Your task to perform on an android device: turn off location history Image 0: 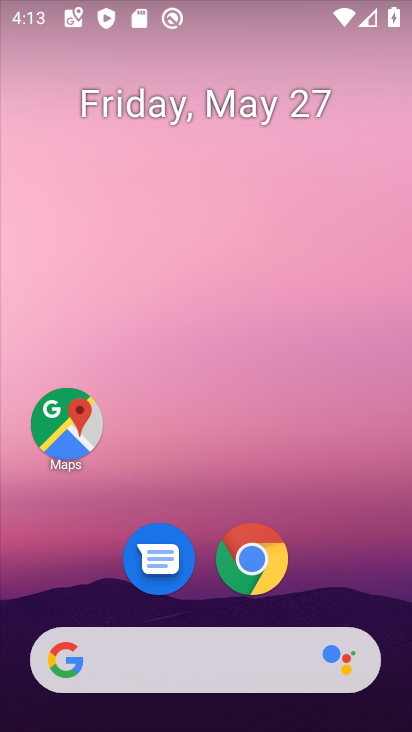
Step 0: drag from (388, 677) to (293, 261)
Your task to perform on an android device: turn off location history Image 1: 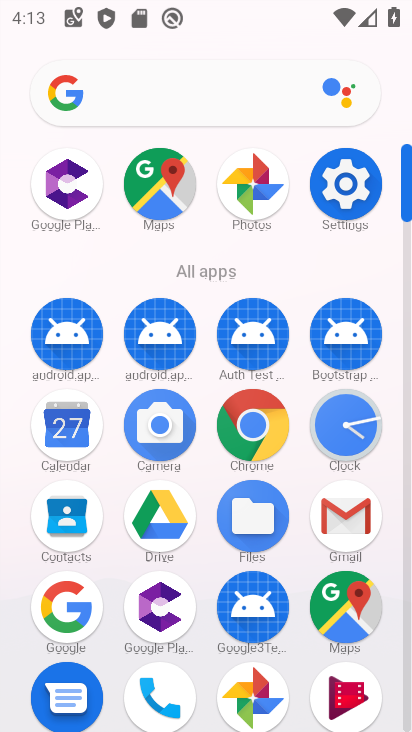
Step 1: click (342, 189)
Your task to perform on an android device: turn off location history Image 2: 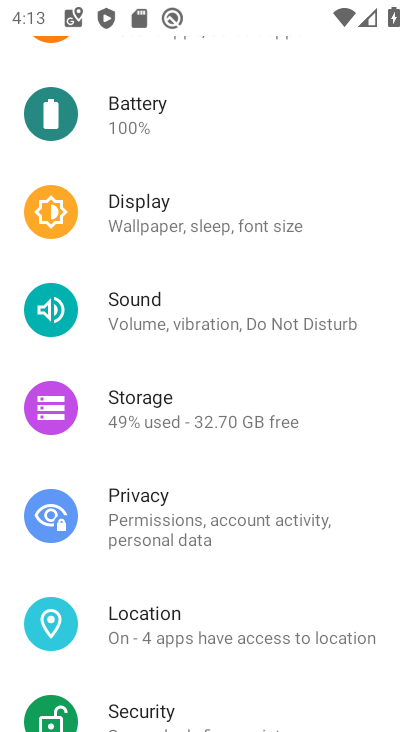
Step 2: click (157, 618)
Your task to perform on an android device: turn off location history Image 3: 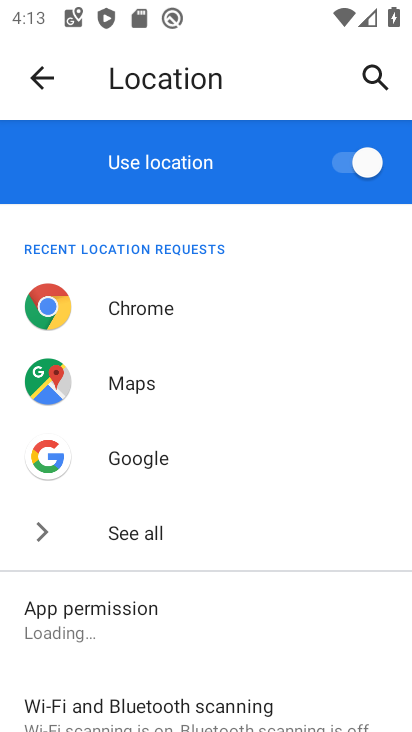
Step 3: drag from (245, 665) to (229, 302)
Your task to perform on an android device: turn off location history Image 4: 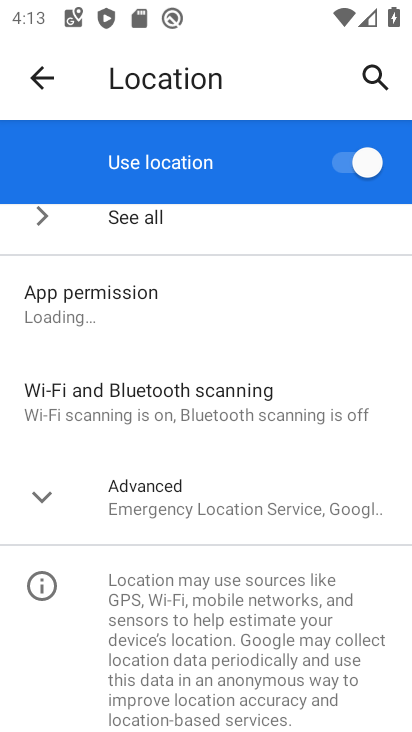
Step 4: click (56, 497)
Your task to perform on an android device: turn off location history Image 5: 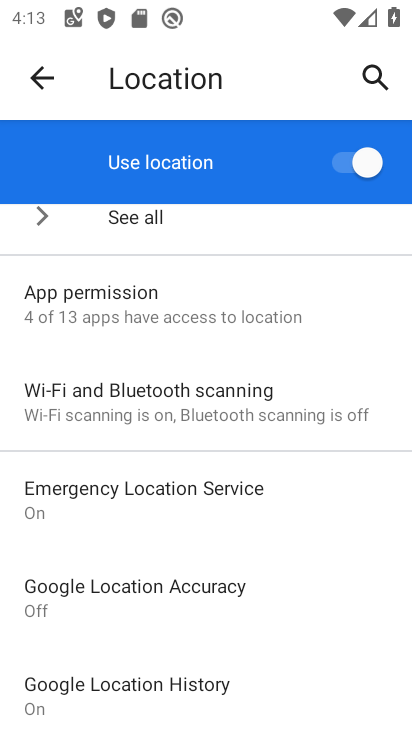
Step 5: click (156, 691)
Your task to perform on an android device: turn off location history Image 6: 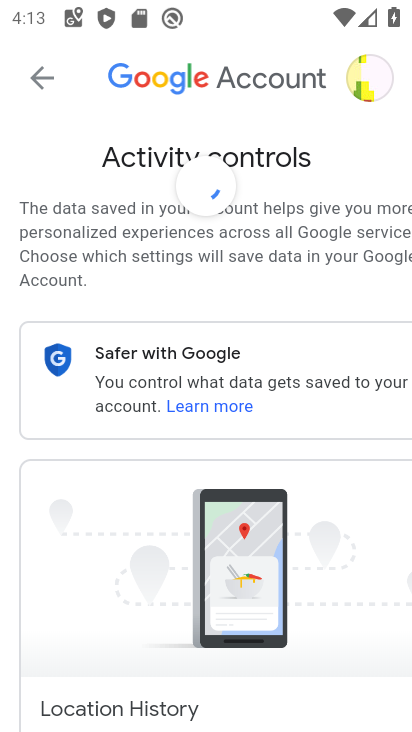
Step 6: drag from (132, 512) to (122, 223)
Your task to perform on an android device: turn off location history Image 7: 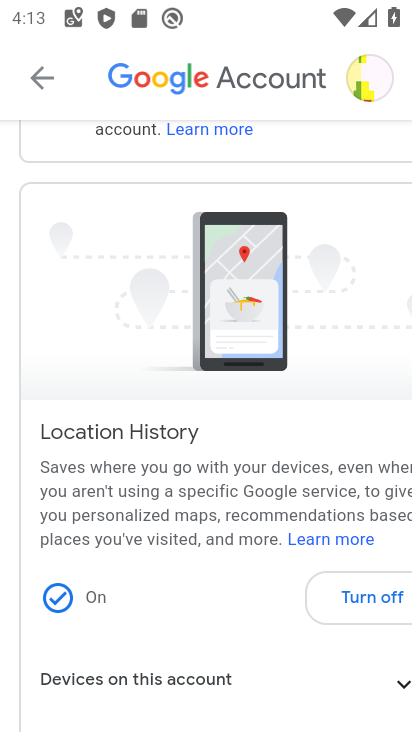
Step 7: click (352, 585)
Your task to perform on an android device: turn off location history Image 8: 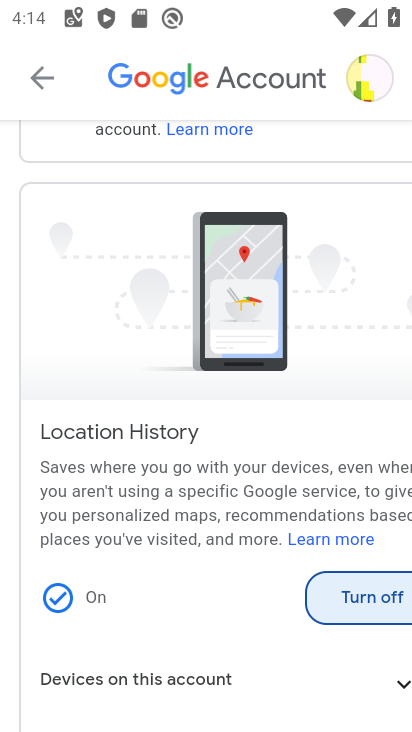
Step 8: drag from (169, 643) to (209, 255)
Your task to perform on an android device: turn off location history Image 9: 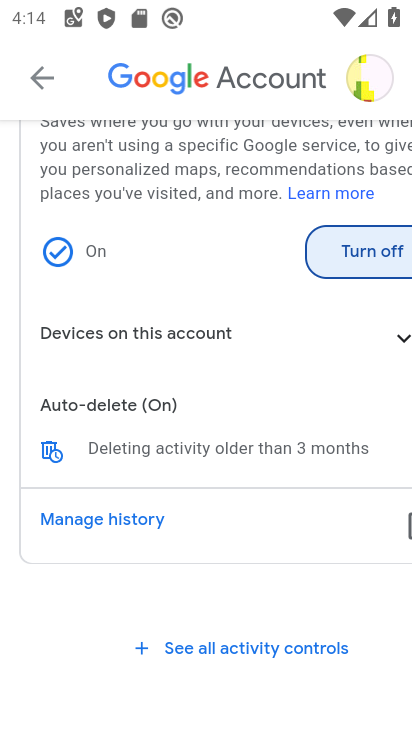
Step 9: drag from (230, 547) to (235, 307)
Your task to perform on an android device: turn off location history Image 10: 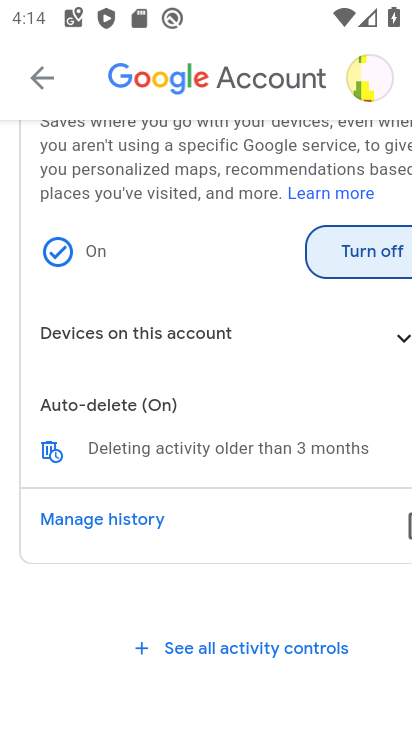
Step 10: click (354, 253)
Your task to perform on an android device: turn off location history Image 11: 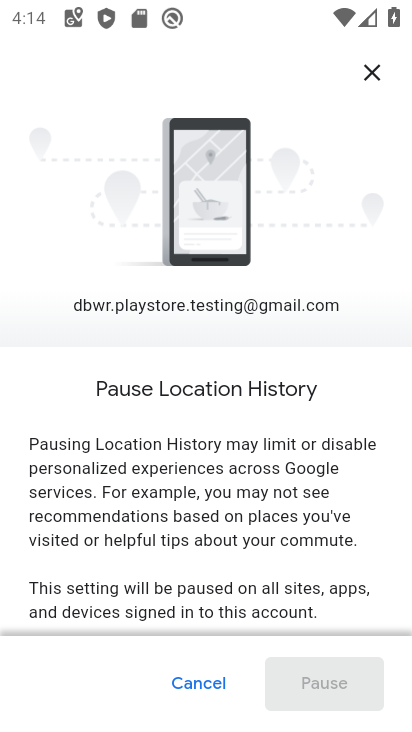
Step 11: drag from (235, 595) to (207, 242)
Your task to perform on an android device: turn off location history Image 12: 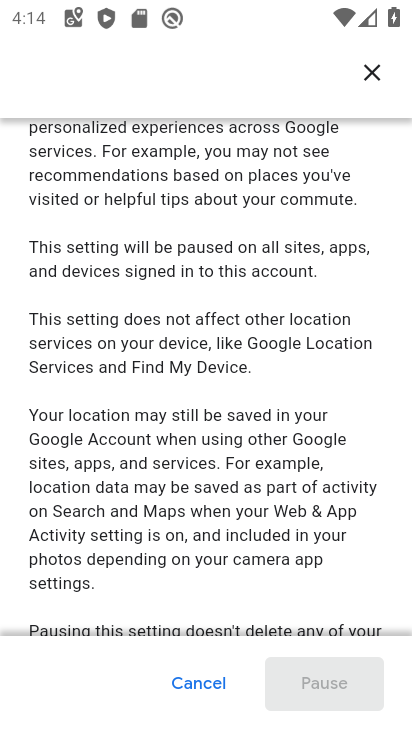
Step 12: drag from (248, 554) to (239, 220)
Your task to perform on an android device: turn off location history Image 13: 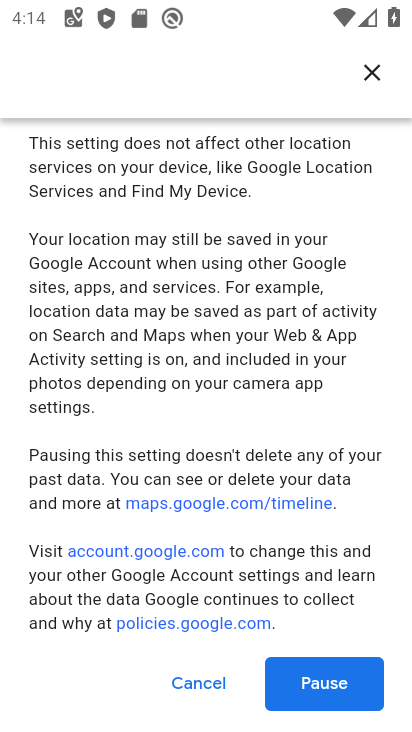
Step 13: click (298, 686)
Your task to perform on an android device: turn off location history Image 14: 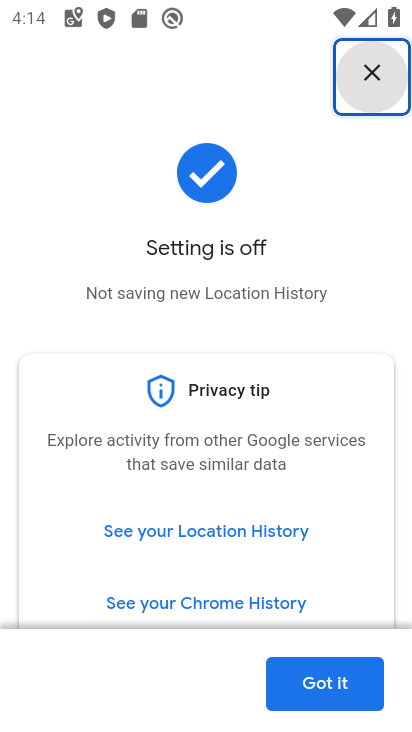
Step 14: click (299, 676)
Your task to perform on an android device: turn off location history Image 15: 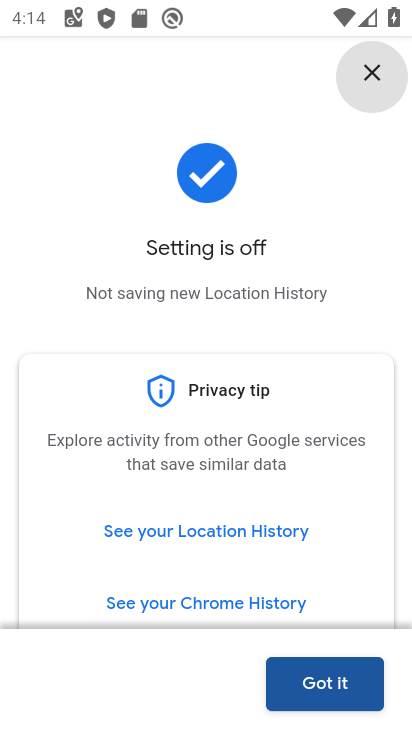
Step 15: click (333, 681)
Your task to perform on an android device: turn off location history Image 16: 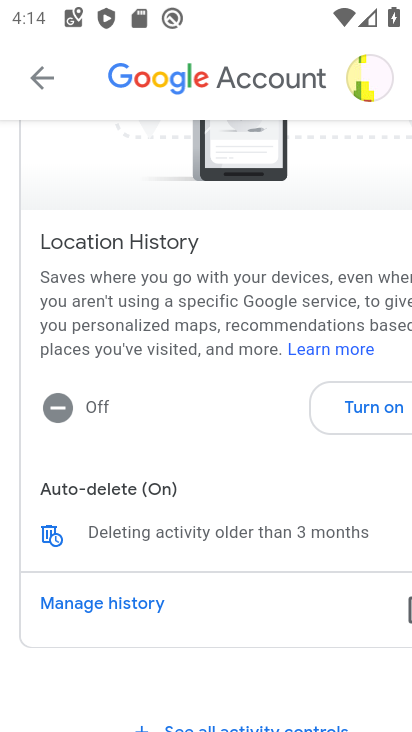
Step 16: task complete